Your task to perform on an android device: What does the iPhone 8 look like? Image 0: 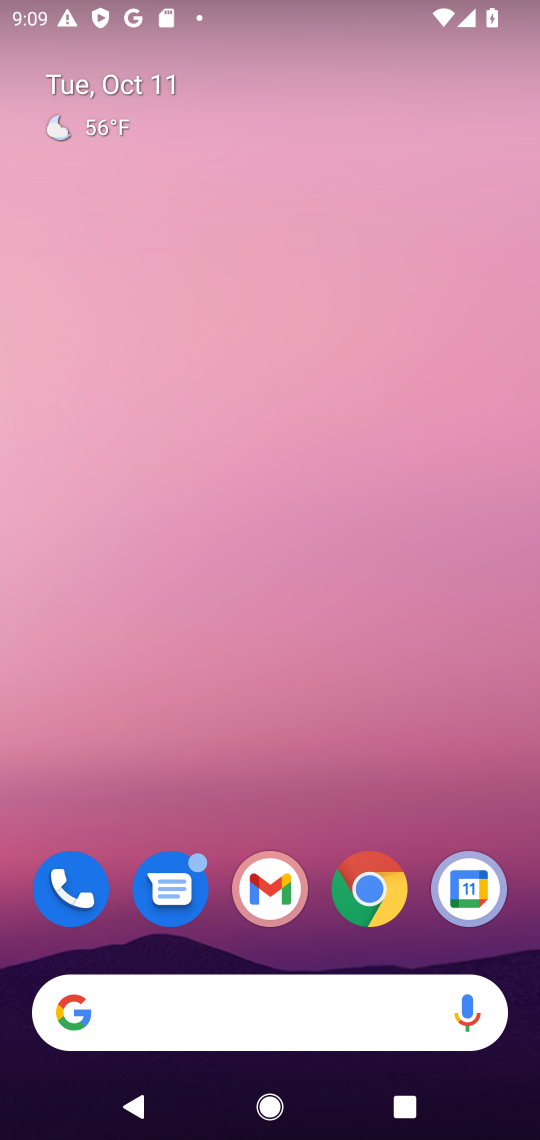
Step 0: click (212, 1008)
Your task to perform on an android device: What does the iPhone 8 look like? Image 1: 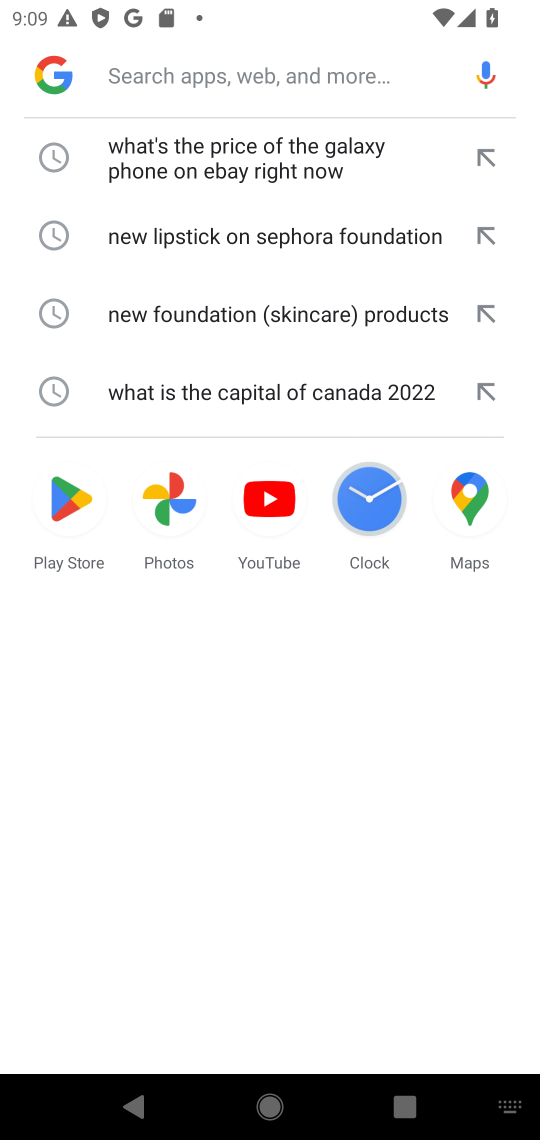
Step 1: click (208, 87)
Your task to perform on an android device: What does the iPhone 8 look like? Image 2: 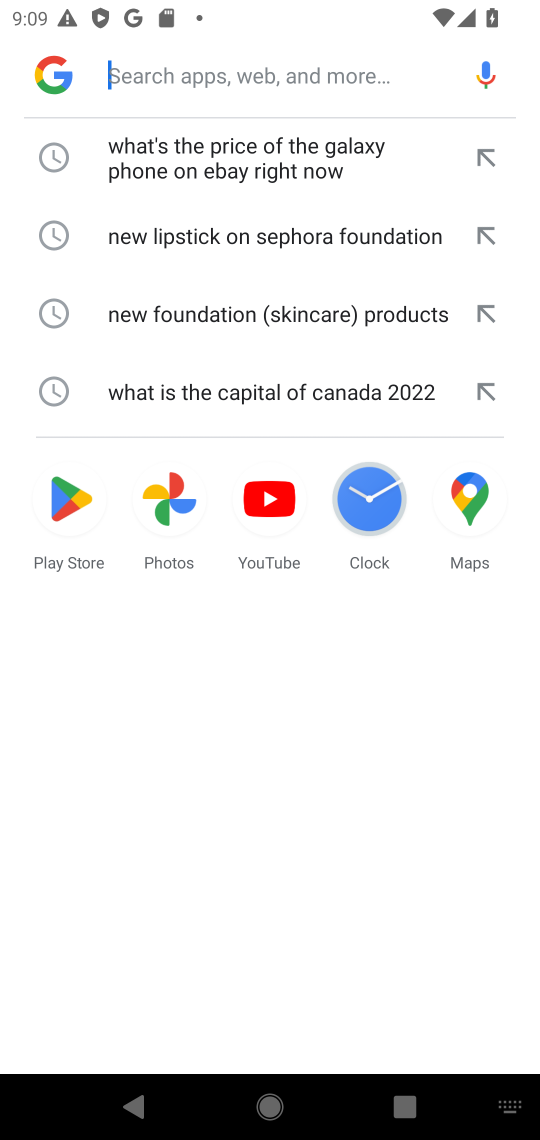
Step 2: type "What does the iPhone 8 look like?"
Your task to perform on an android device: What does the iPhone 8 look like? Image 3: 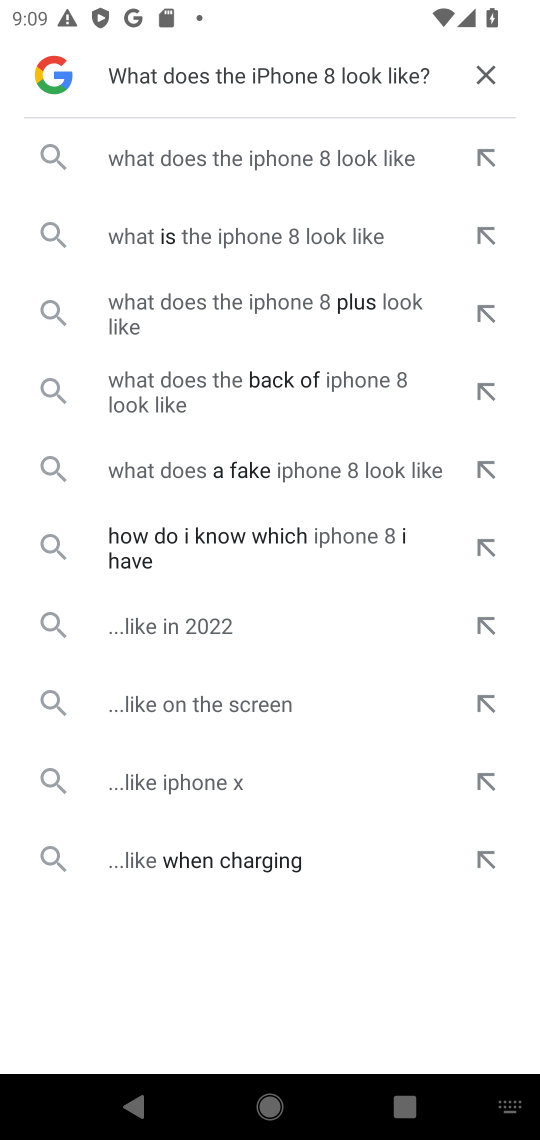
Step 3: click (298, 164)
Your task to perform on an android device: What does the iPhone 8 look like? Image 4: 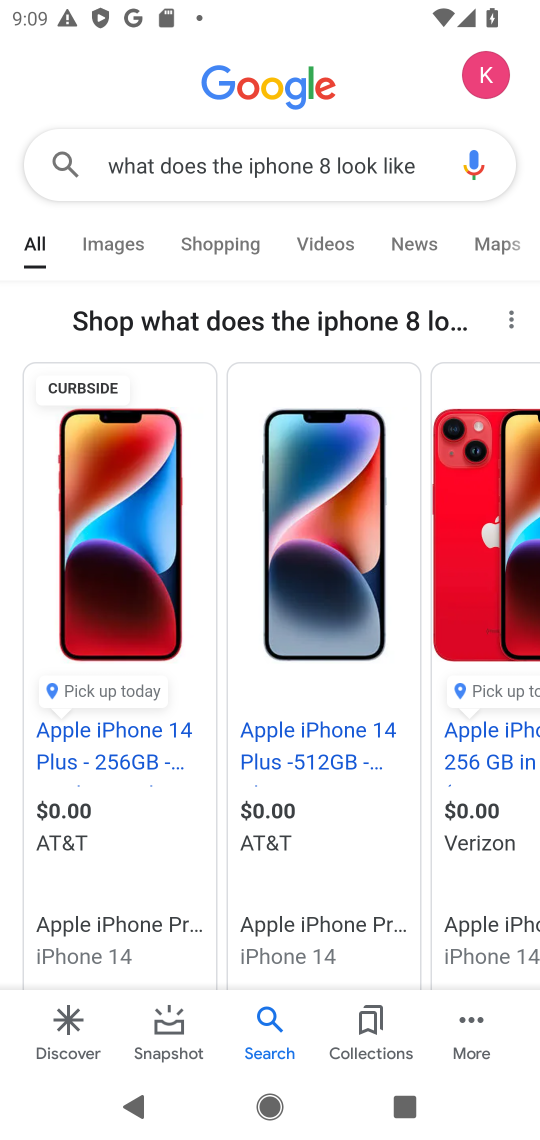
Step 4: task complete